Your task to perform on an android device: Open battery settings Image 0: 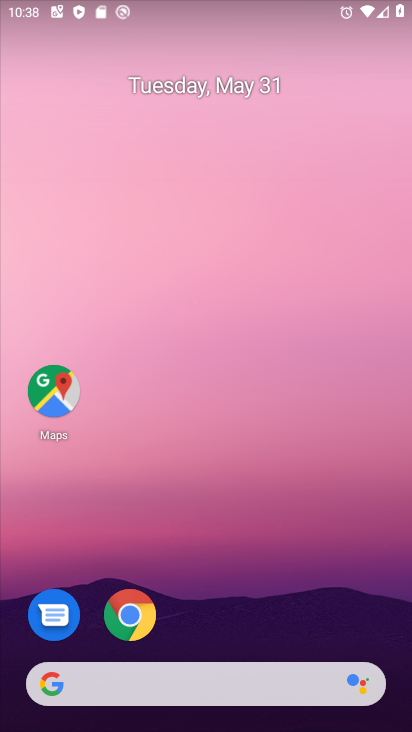
Step 0: drag from (328, 527) to (348, 60)
Your task to perform on an android device: Open battery settings Image 1: 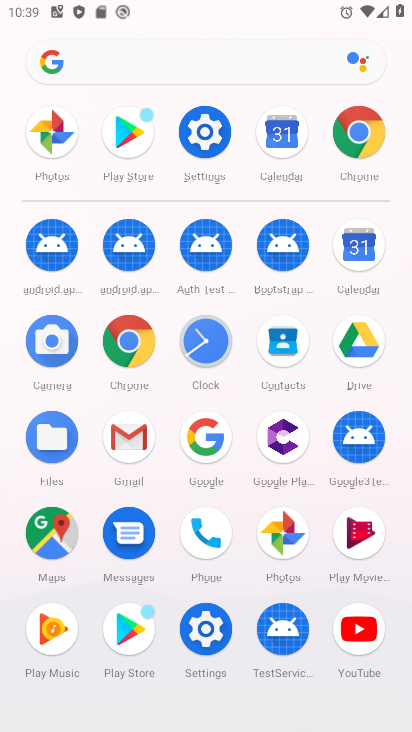
Step 1: click (218, 131)
Your task to perform on an android device: Open battery settings Image 2: 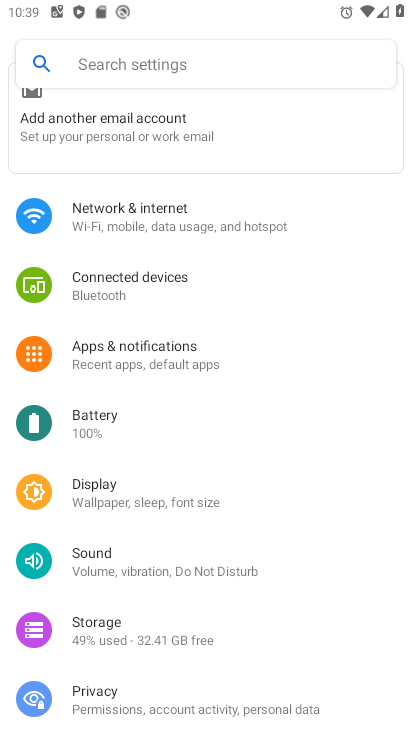
Step 2: click (84, 430)
Your task to perform on an android device: Open battery settings Image 3: 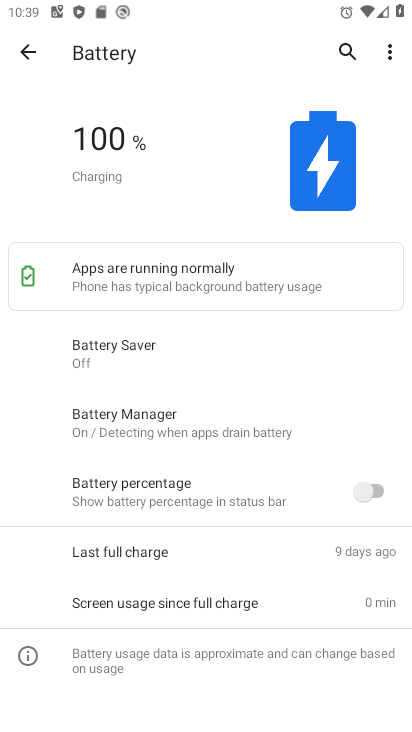
Step 3: task complete